Your task to perform on an android device: open app "VLC for Android" (install if not already installed) Image 0: 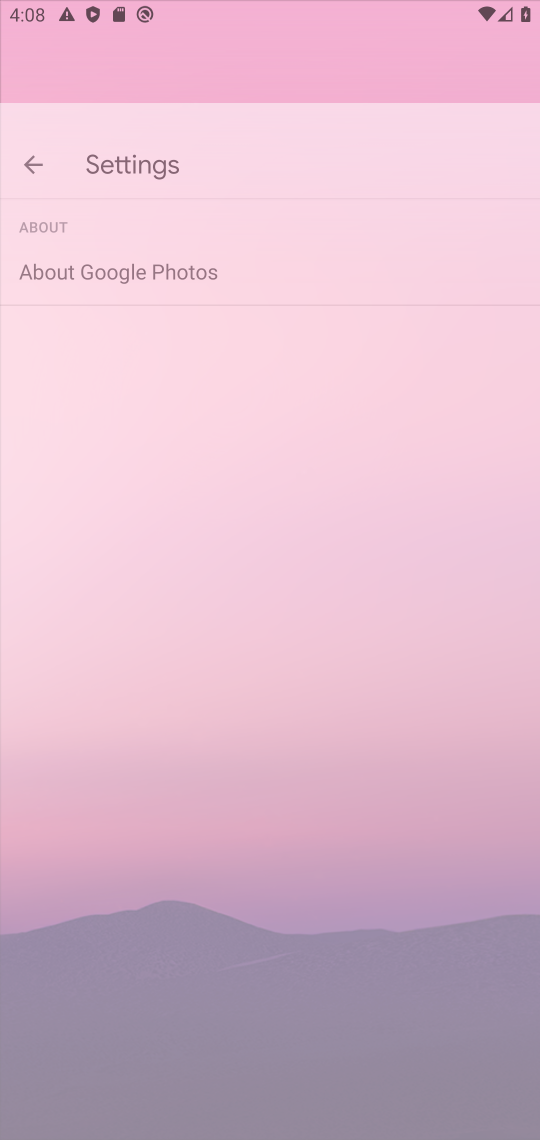
Step 0: press home button
Your task to perform on an android device: open app "VLC for Android" (install if not already installed) Image 1: 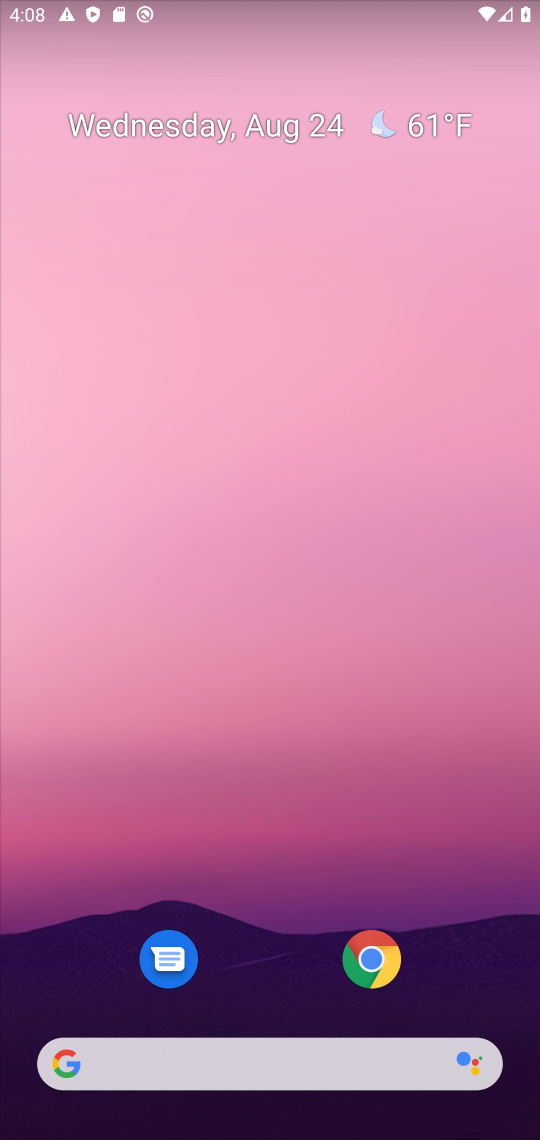
Step 1: drag from (277, 1017) to (391, 115)
Your task to perform on an android device: open app "VLC for Android" (install if not already installed) Image 2: 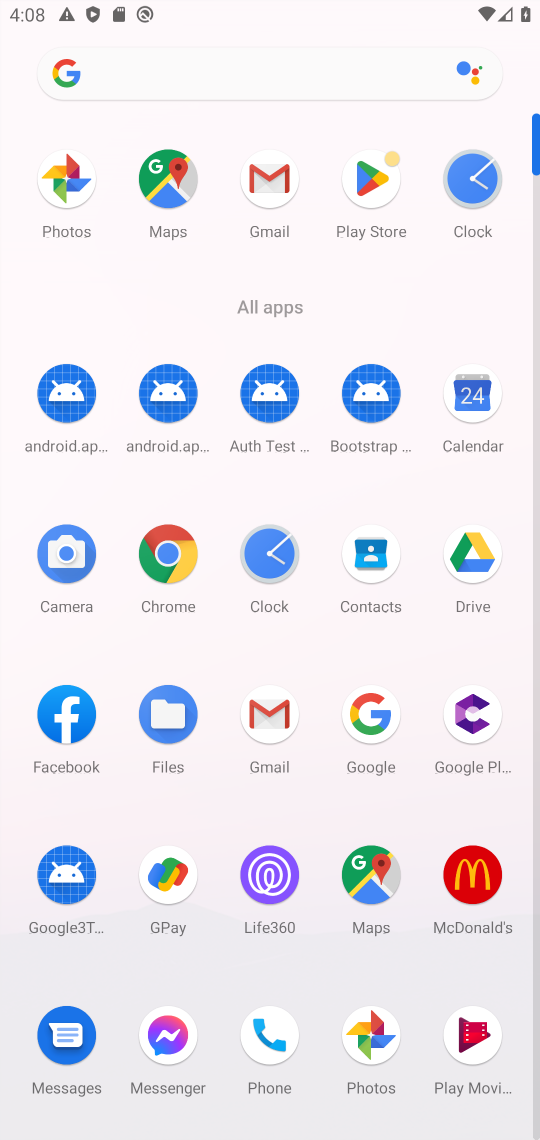
Step 2: click (386, 197)
Your task to perform on an android device: open app "VLC for Android" (install if not already installed) Image 3: 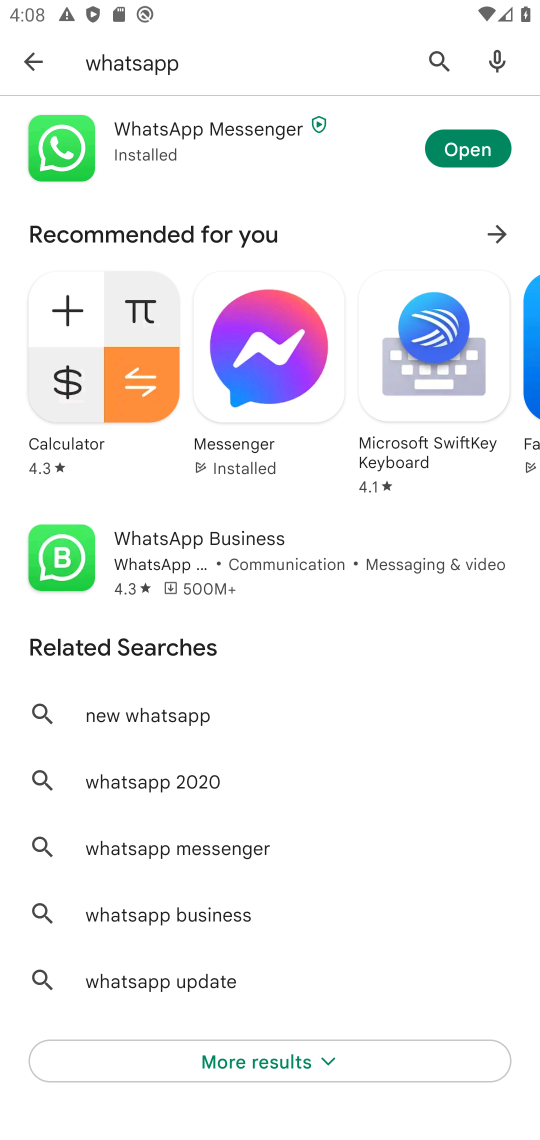
Step 3: click (428, 80)
Your task to perform on an android device: open app "VLC for Android" (install if not already installed) Image 4: 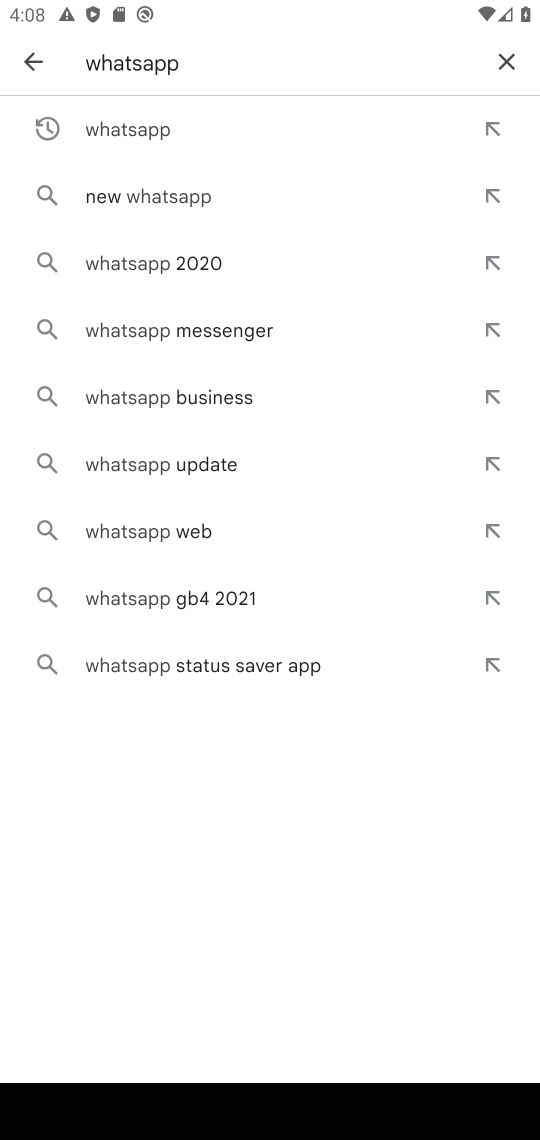
Step 4: click (514, 75)
Your task to perform on an android device: open app "VLC for Android" (install if not already installed) Image 5: 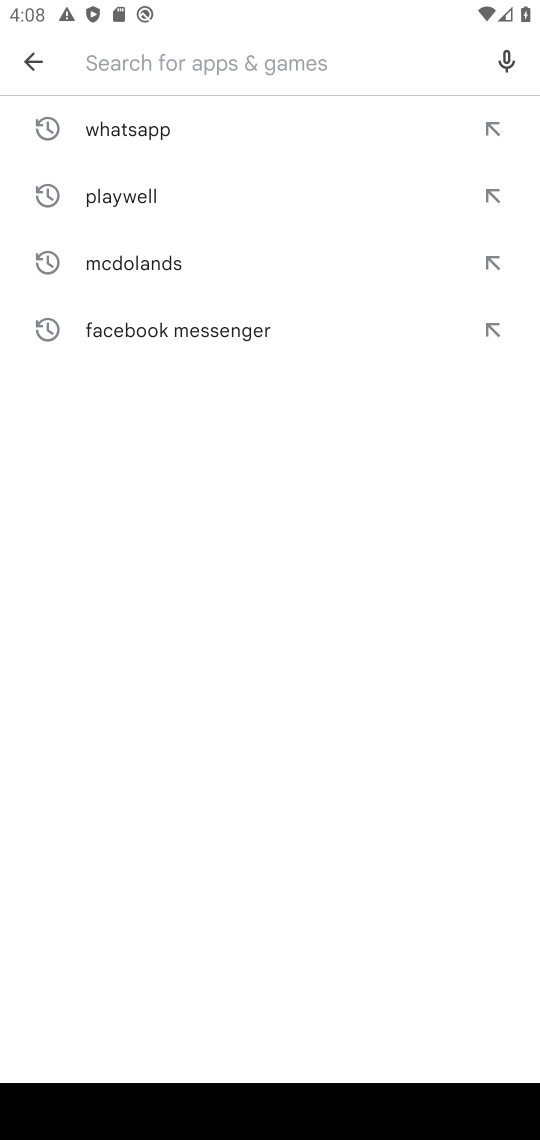
Step 5: type "vlc"
Your task to perform on an android device: open app "VLC for Android" (install if not already installed) Image 6: 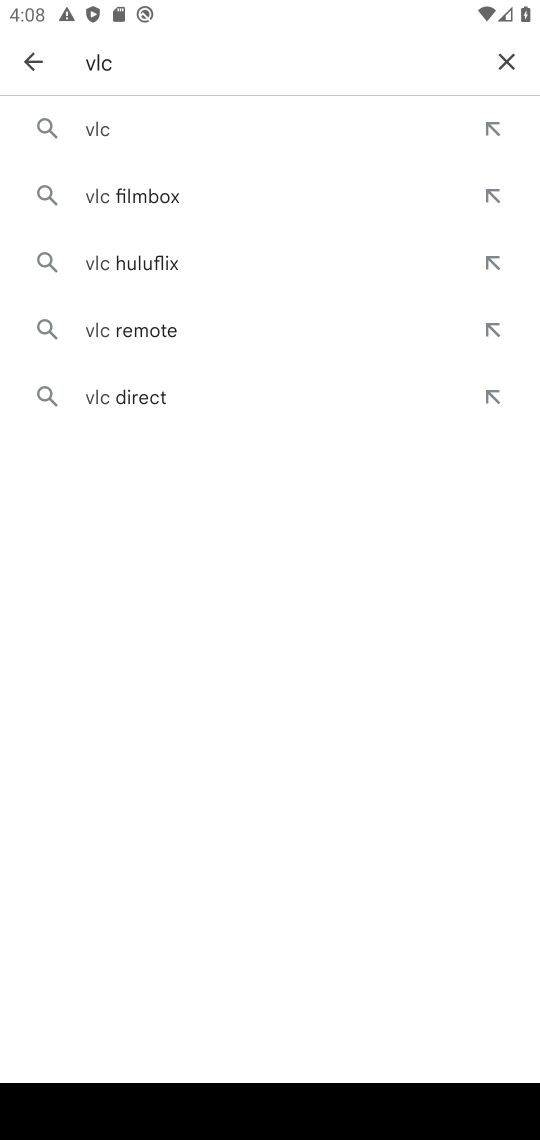
Step 6: click (314, 125)
Your task to perform on an android device: open app "VLC for Android" (install if not already installed) Image 7: 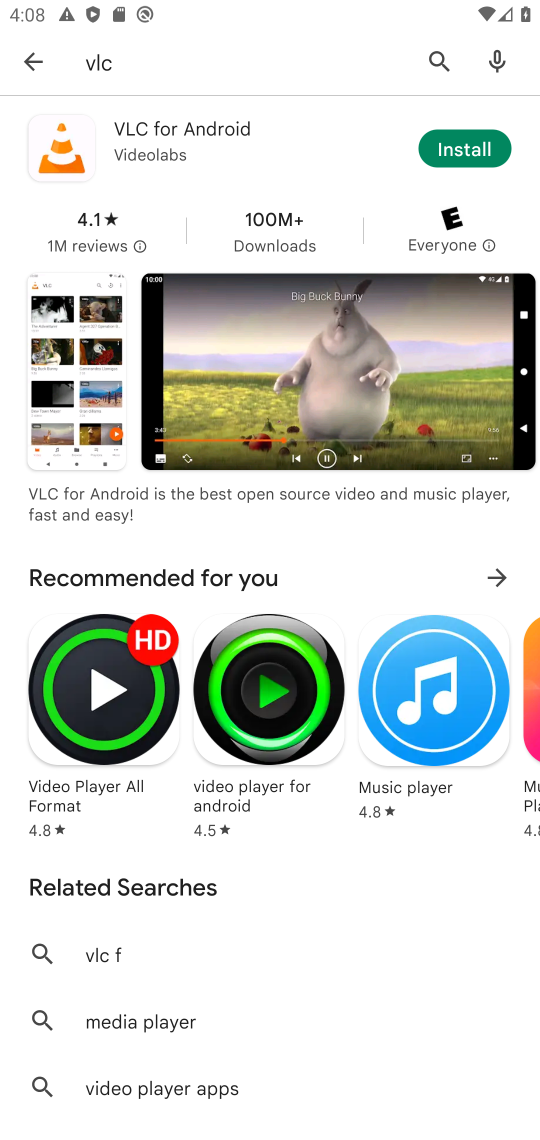
Step 7: click (428, 153)
Your task to perform on an android device: open app "VLC for Android" (install if not already installed) Image 8: 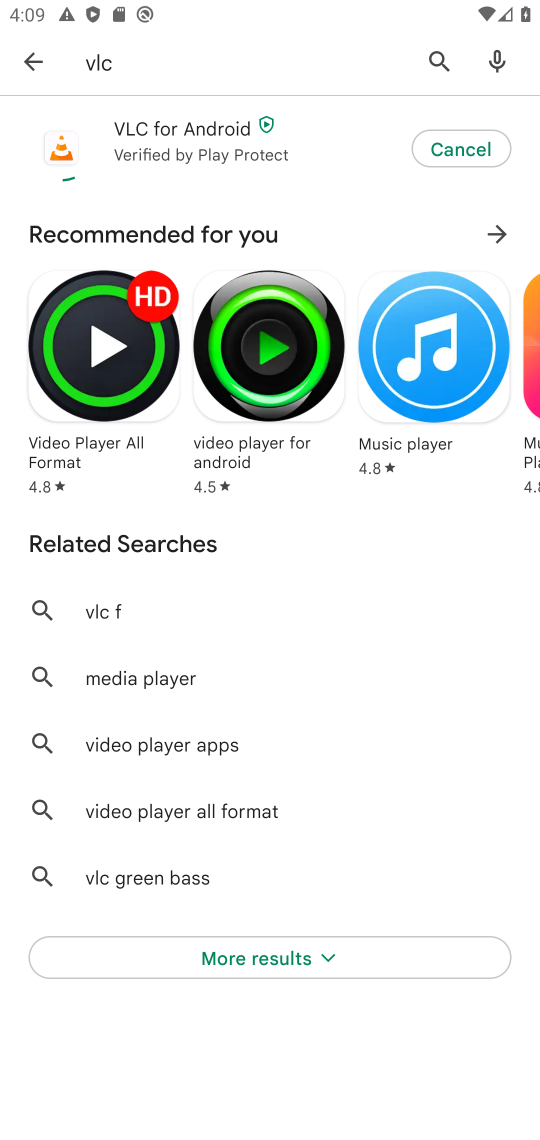
Step 8: task complete